Your task to perform on an android device: Do I have any events this weekend? Image 0: 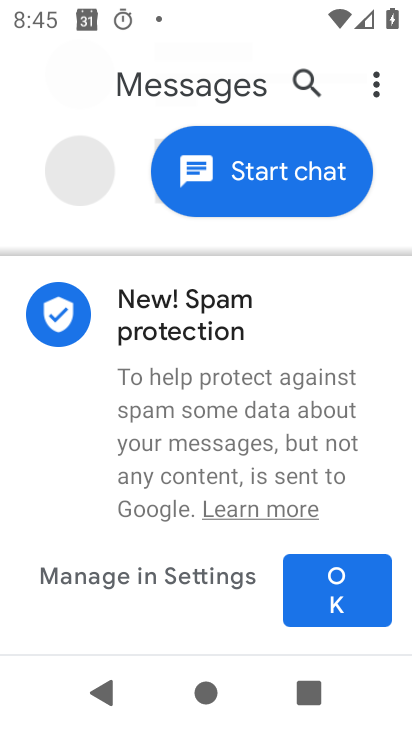
Step 0: press home button
Your task to perform on an android device: Do I have any events this weekend? Image 1: 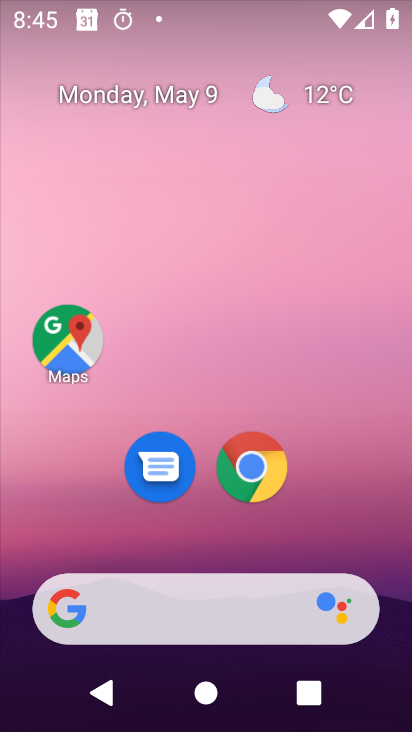
Step 1: drag from (355, 553) to (356, 94)
Your task to perform on an android device: Do I have any events this weekend? Image 2: 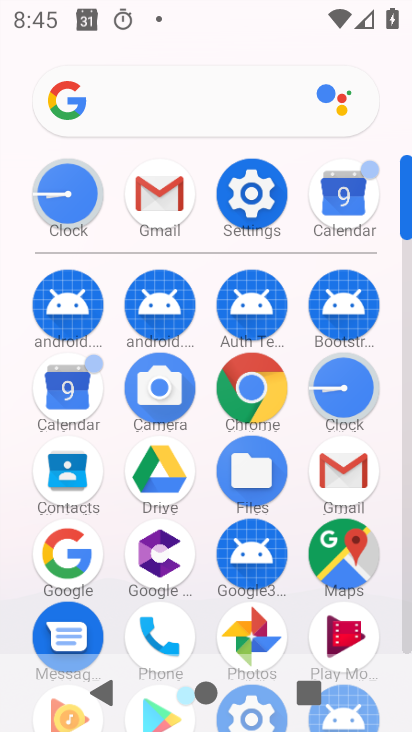
Step 2: click (356, 203)
Your task to perform on an android device: Do I have any events this weekend? Image 3: 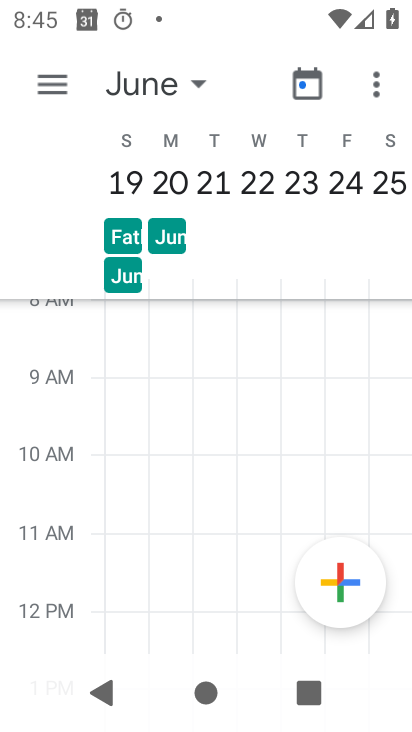
Step 3: click (192, 89)
Your task to perform on an android device: Do I have any events this weekend? Image 4: 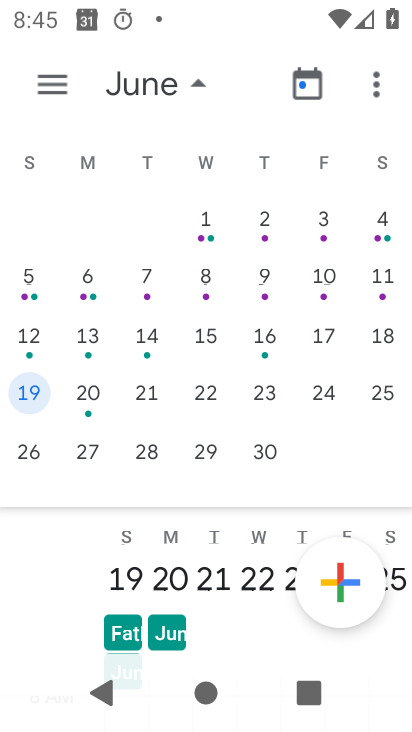
Step 4: drag from (111, 291) to (398, 305)
Your task to perform on an android device: Do I have any events this weekend? Image 5: 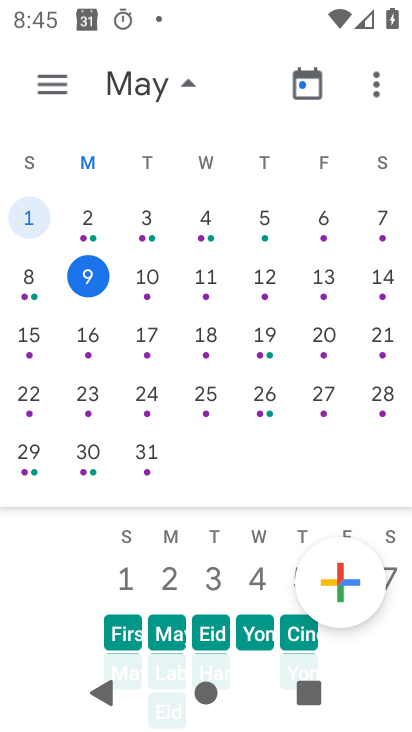
Step 5: click (49, 91)
Your task to perform on an android device: Do I have any events this weekend? Image 6: 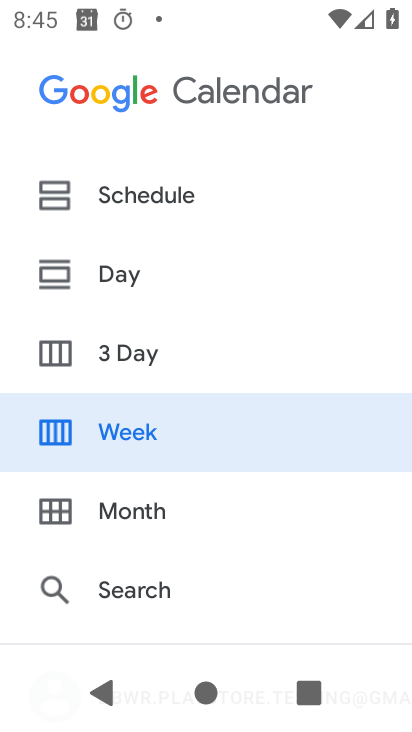
Step 6: click (92, 432)
Your task to perform on an android device: Do I have any events this weekend? Image 7: 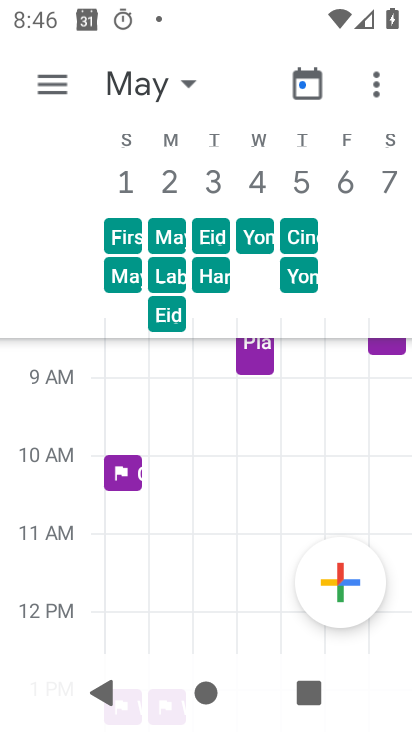
Step 7: drag from (384, 413) to (383, 477)
Your task to perform on an android device: Do I have any events this weekend? Image 8: 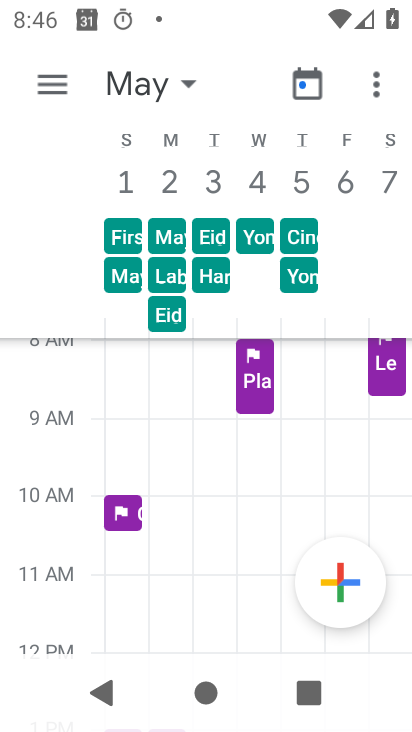
Step 8: click (381, 364)
Your task to perform on an android device: Do I have any events this weekend? Image 9: 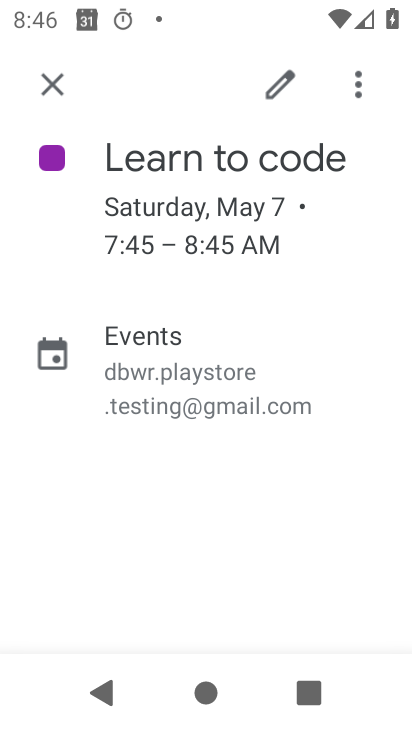
Step 9: task complete